Your task to perform on an android device: toggle pop-ups in chrome Image 0: 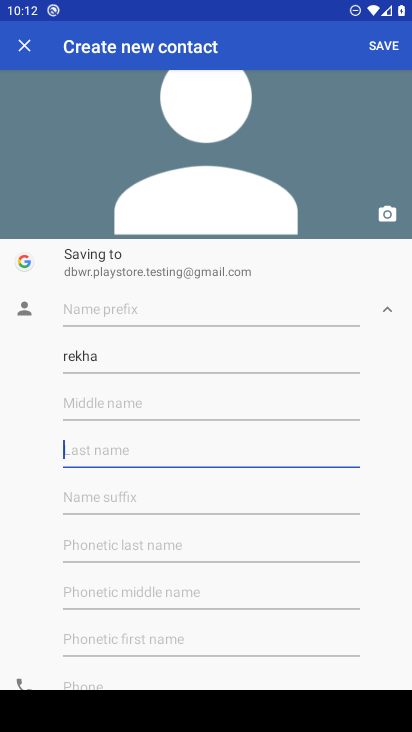
Step 0: press home button
Your task to perform on an android device: toggle pop-ups in chrome Image 1: 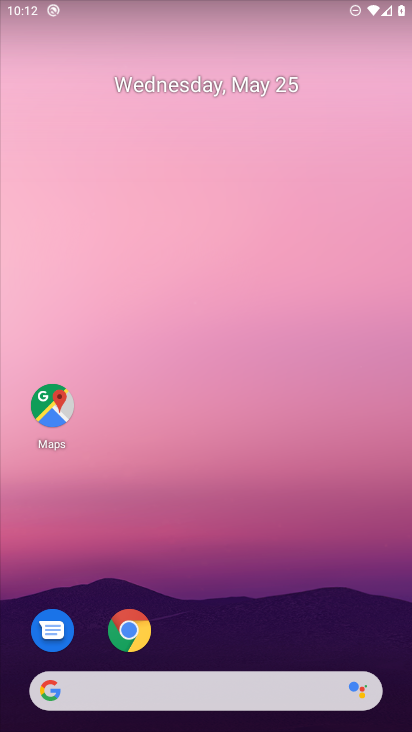
Step 1: click (133, 633)
Your task to perform on an android device: toggle pop-ups in chrome Image 2: 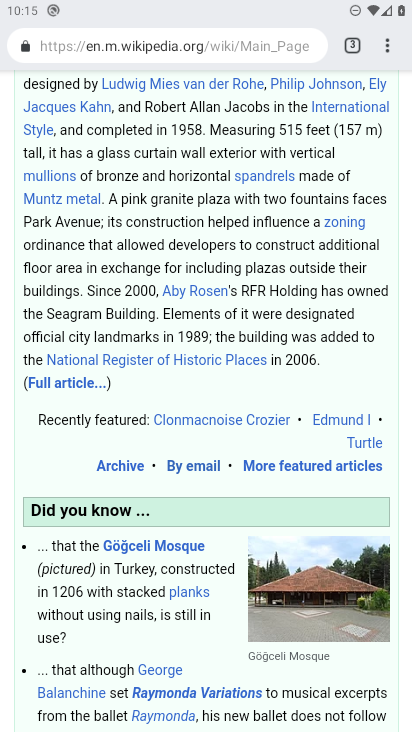
Step 2: click (384, 46)
Your task to perform on an android device: toggle pop-ups in chrome Image 3: 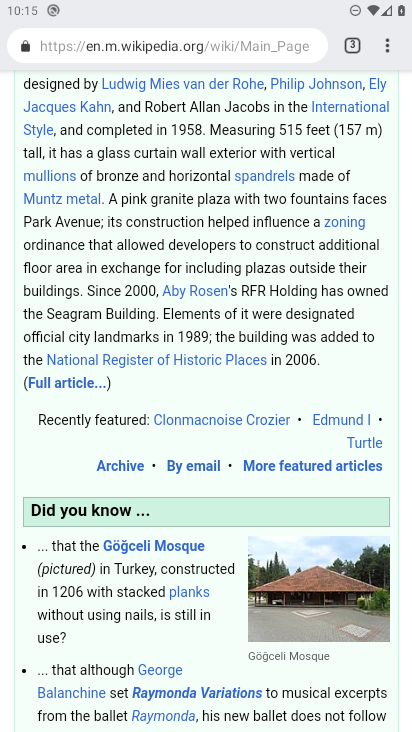
Step 3: click (390, 46)
Your task to perform on an android device: toggle pop-ups in chrome Image 4: 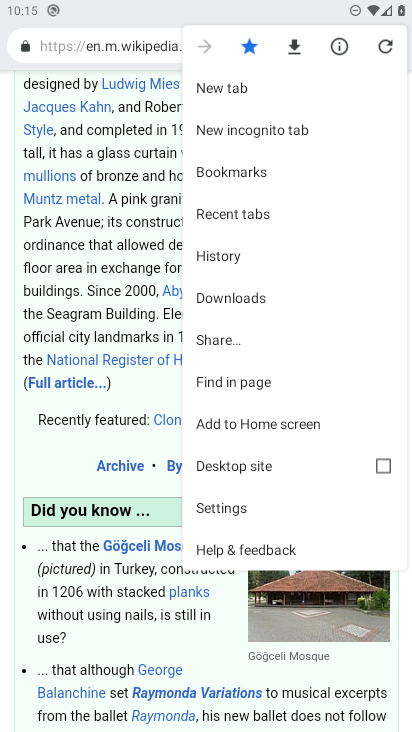
Step 4: click (213, 506)
Your task to perform on an android device: toggle pop-ups in chrome Image 5: 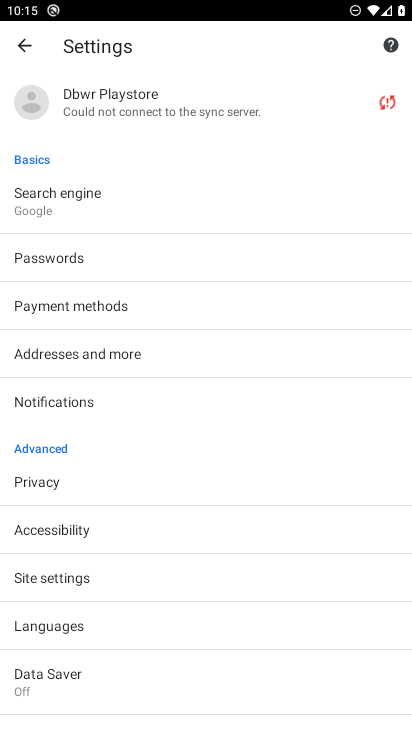
Step 5: drag from (97, 696) to (84, 377)
Your task to perform on an android device: toggle pop-ups in chrome Image 6: 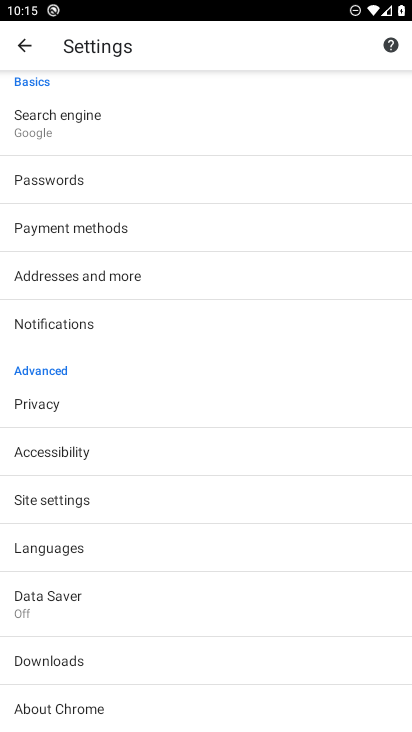
Step 6: click (49, 503)
Your task to perform on an android device: toggle pop-ups in chrome Image 7: 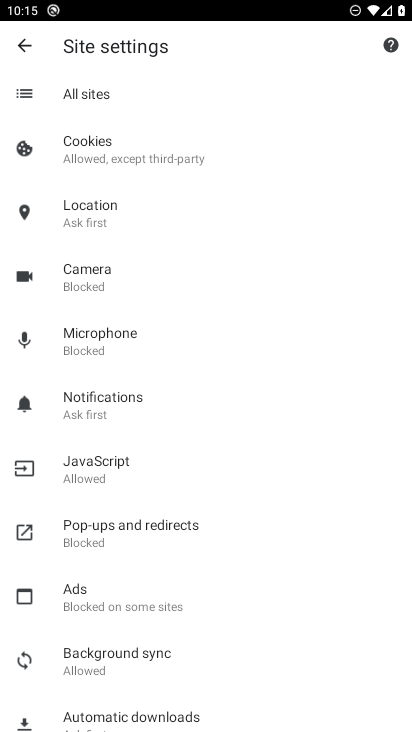
Step 7: click (108, 535)
Your task to perform on an android device: toggle pop-ups in chrome Image 8: 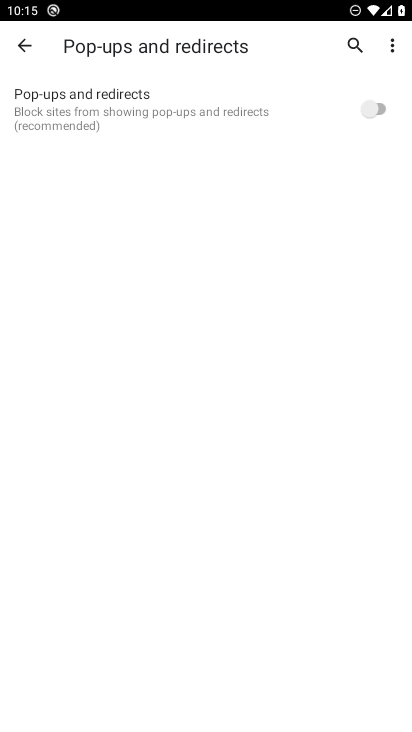
Step 8: click (379, 111)
Your task to perform on an android device: toggle pop-ups in chrome Image 9: 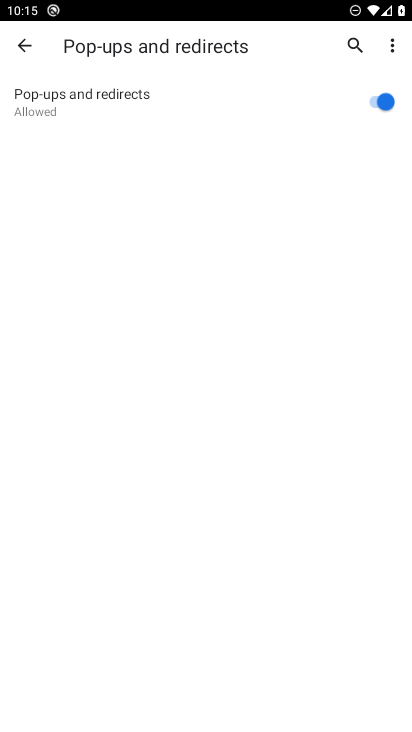
Step 9: task complete